Your task to perform on an android device: Open calendar and show me the fourth week of next month Image 0: 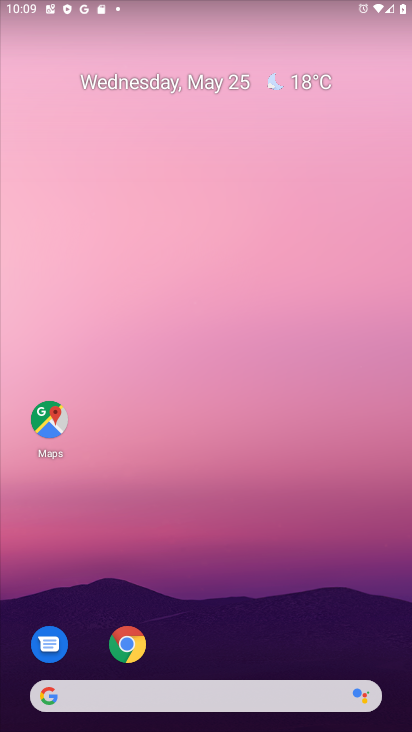
Step 0: press home button
Your task to perform on an android device: Open calendar and show me the fourth week of next month Image 1: 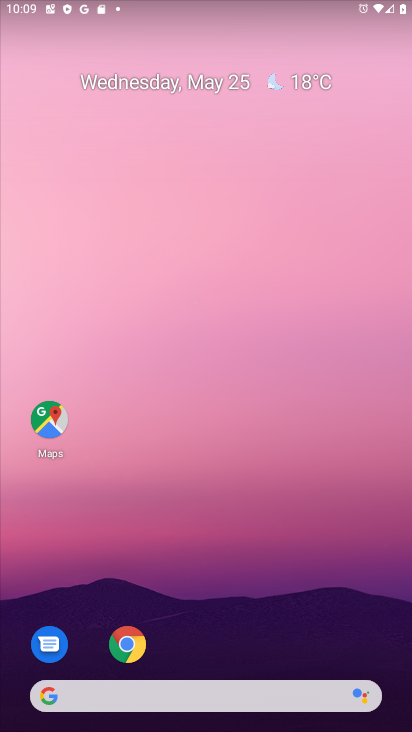
Step 1: drag from (196, 660) to (199, 95)
Your task to perform on an android device: Open calendar and show me the fourth week of next month Image 2: 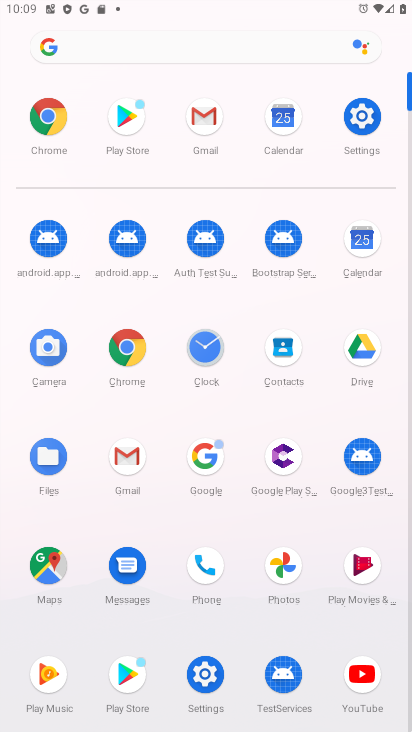
Step 2: click (279, 111)
Your task to perform on an android device: Open calendar and show me the fourth week of next month Image 3: 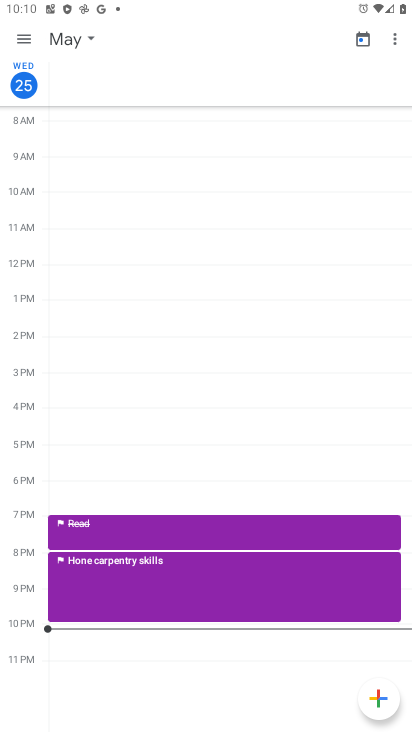
Step 3: click (26, 39)
Your task to perform on an android device: Open calendar and show me the fourth week of next month Image 4: 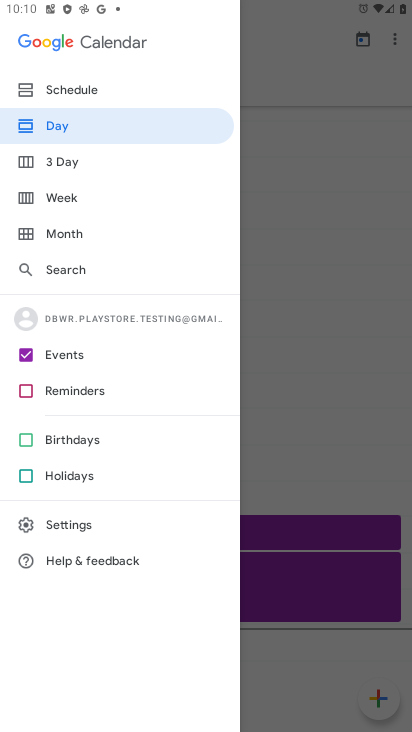
Step 4: click (44, 191)
Your task to perform on an android device: Open calendar and show me the fourth week of next month Image 5: 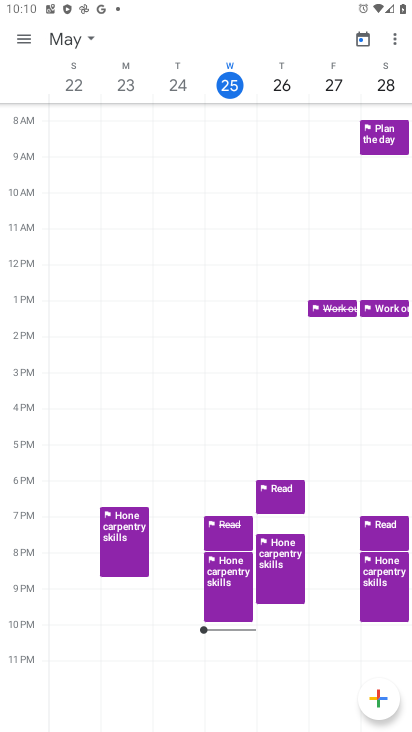
Step 5: click (87, 35)
Your task to perform on an android device: Open calendar and show me the fourth week of next month Image 6: 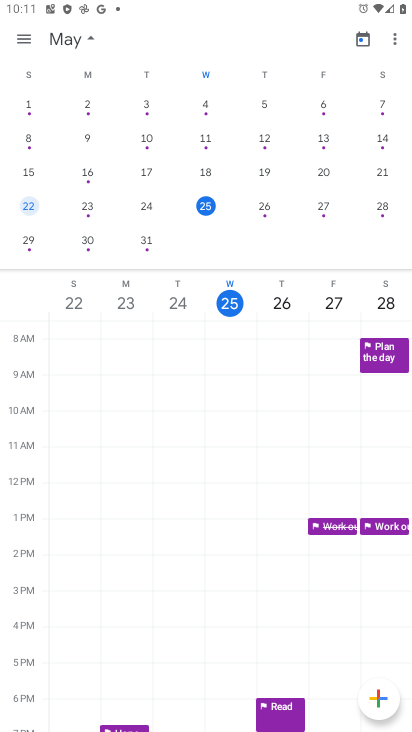
Step 6: drag from (352, 137) to (1, 177)
Your task to perform on an android device: Open calendar and show me the fourth week of next month Image 7: 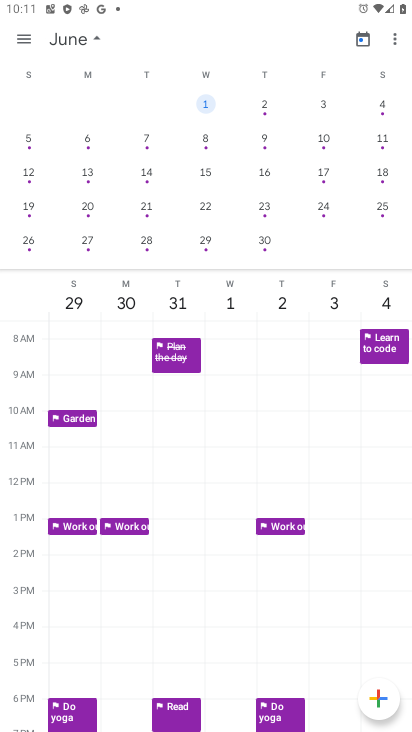
Step 7: click (32, 199)
Your task to perform on an android device: Open calendar and show me the fourth week of next month Image 8: 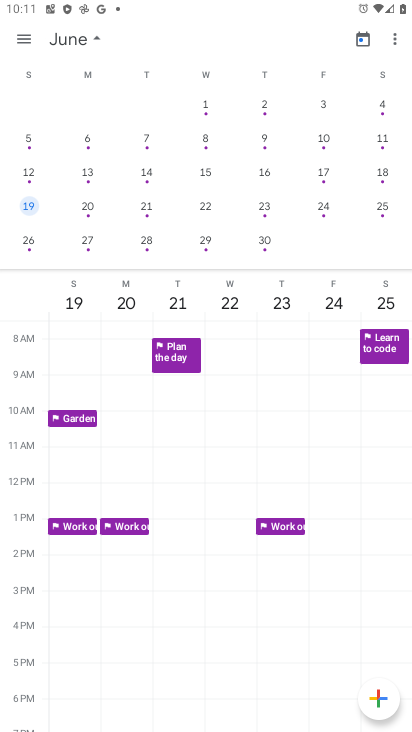
Step 8: click (99, 42)
Your task to perform on an android device: Open calendar and show me the fourth week of next month Image 9: 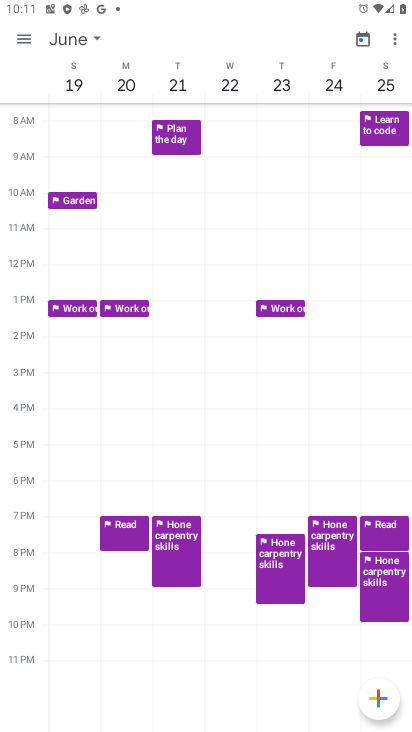
Step 9: click (80, 86)
Your task to perform on an android device: Open calendar and show me the fourth week of next month Image 10: 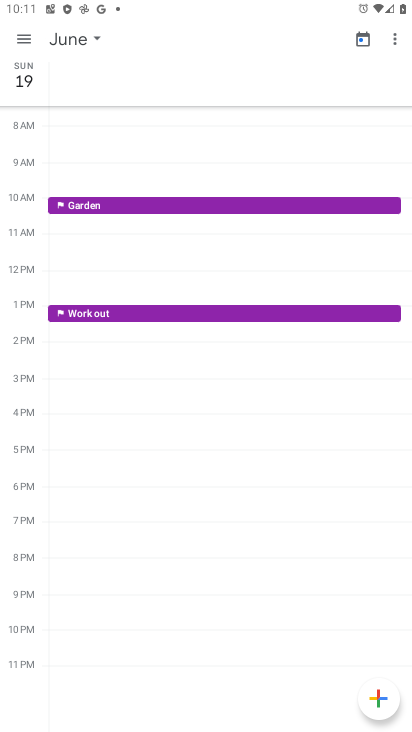
Step 10: click (35, 81)
Your task to perform on an android device: Open calendar and show me the fourth week of next month Image 11: 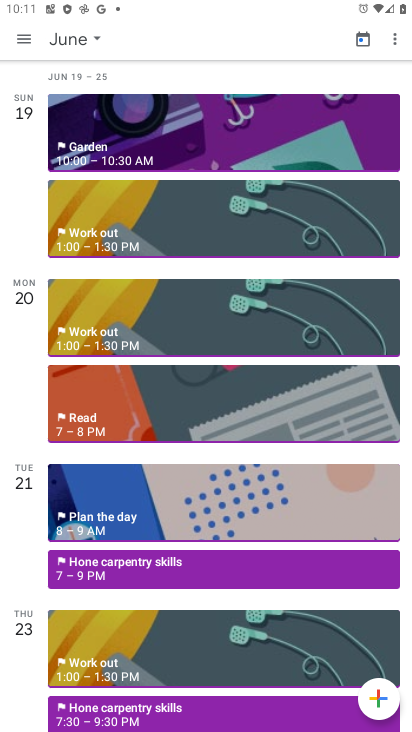
Step 11: task complete